Your task to perform on an android device: see sites visited before in the chrome app Image 0: 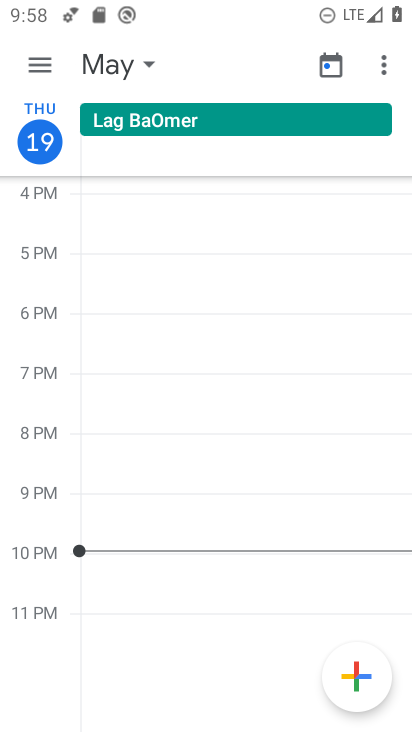
Step 0: press home button
Your task to perform on an android device: see sites visited before in the chrome app Image 1: 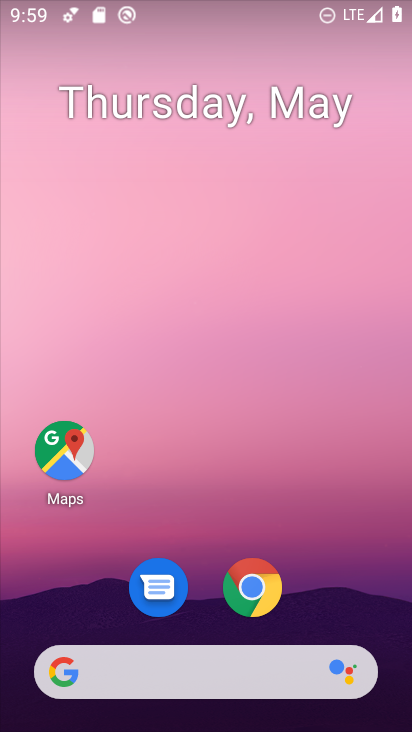
Step 1: click (256, 590)
Your task to perform on an android device: see sites visited before in the chrome app Image 2: 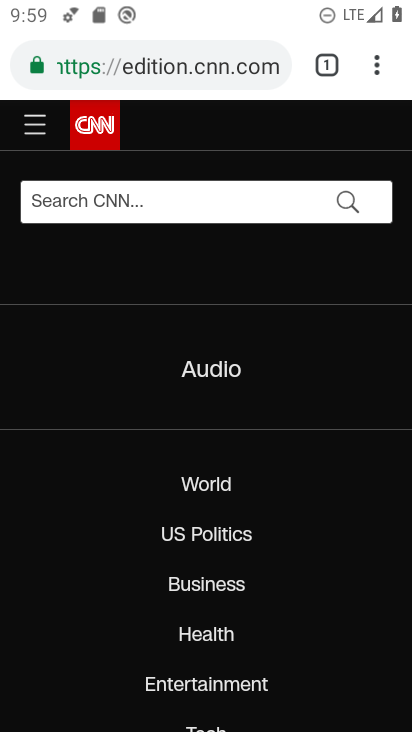
Step 2: task complete